Your task to perform on an android device: Go to sound settings Image 0: 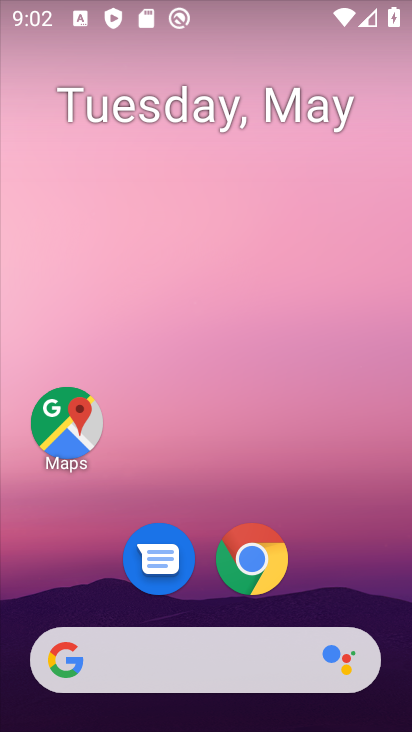
Step 0: drag from (111, 644) to (89, 75)
Your task to perform on an android device: Go to sound settings Image 1: 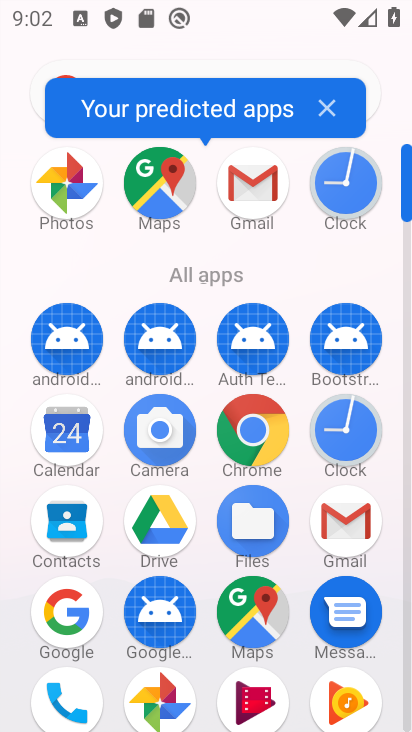
Step 1: drag from (219, 572) to (148, 61)
Your task to perform on an android device: Go to sound settings Image 2: 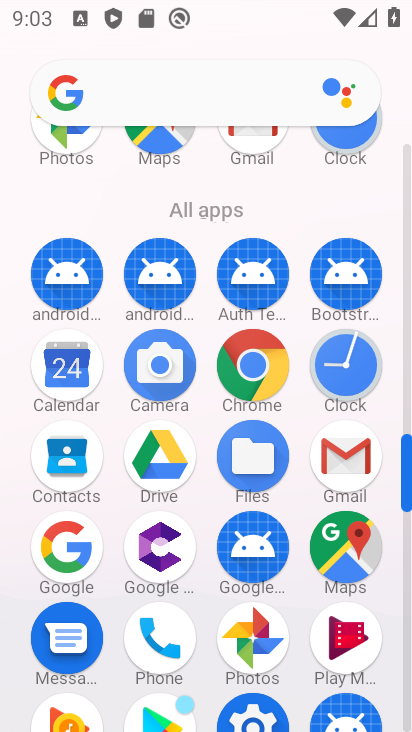
Step 2: click (249, 712)
Your task to perform on an android device: Go to sound settings Image 3: 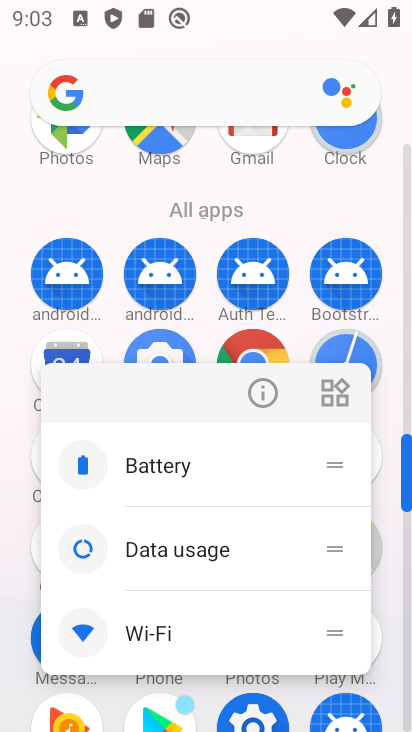
Step 3: click (245, 713)
Your task to perform on an android device: Go to sound settings Image 4: 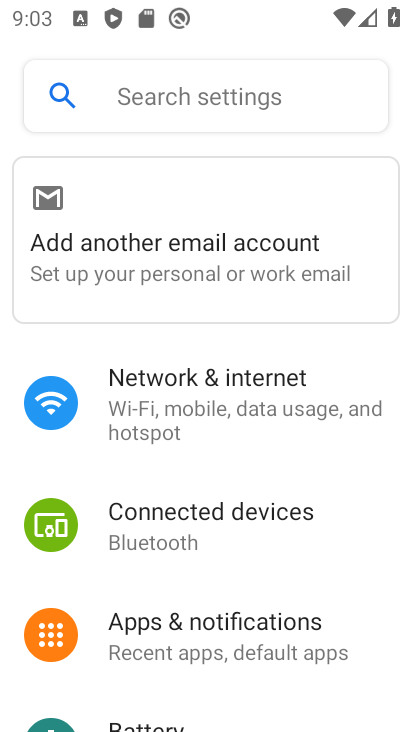
Step 4: drag from (208, 614) to (189, 348)
Your task to perform on an android device: Go to sound settings Image 5: 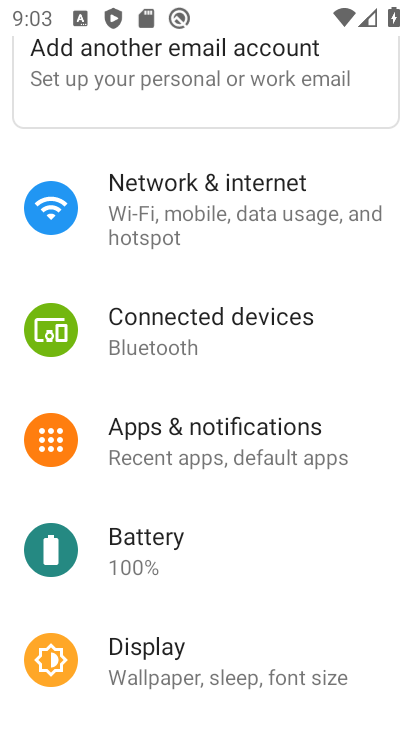
Step 5: drag from (192, 358) to (256, 381)
Your task to perform on an android device: Go to sound settings Image 6: 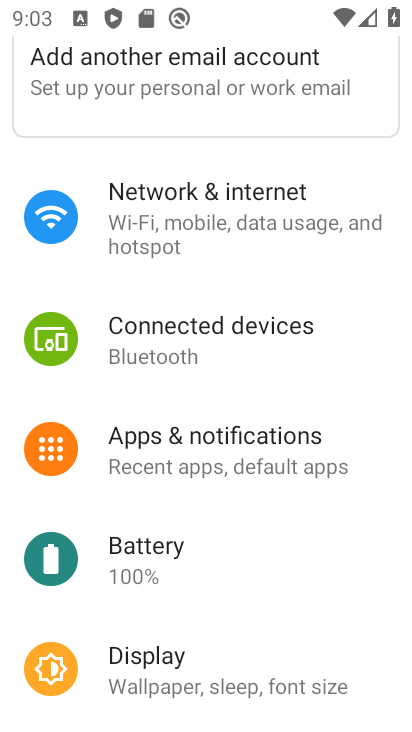
Step 6: drag from (194, 634) to (219, 443)
Your task to perform on an android device: Go to sound settings Image 7: 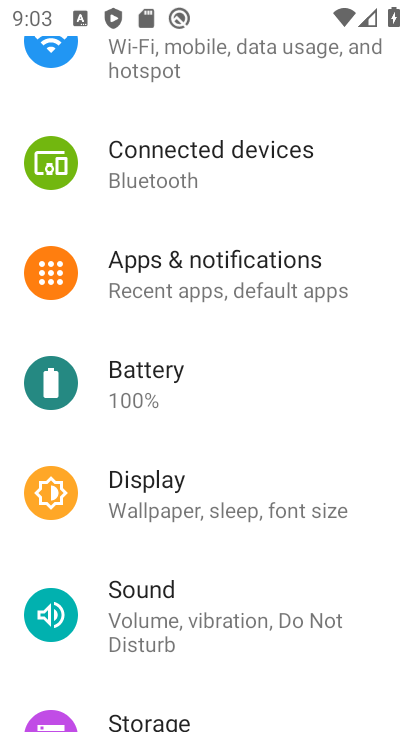
Step 7: click (186, 617)
Your task to perform on an android device: Go to sound settings Image 8: 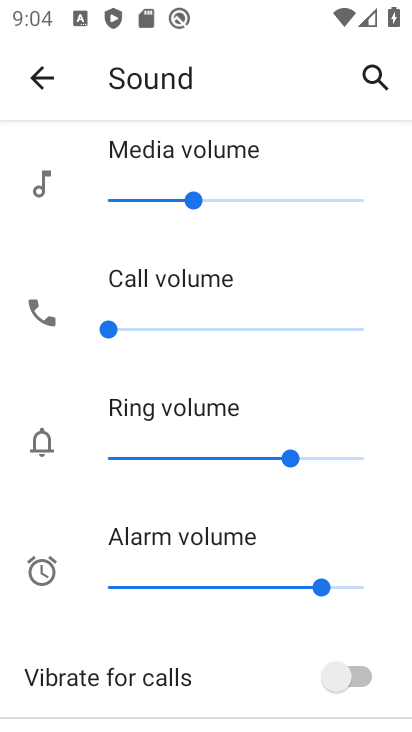
Step 8: task complete